Your task to perform on an android device: Clear the shopping cart on amazon. Search for "macbook pro 15 inch" on amazon, select the first entry, add it to the cart, then select checkout. Image 0: 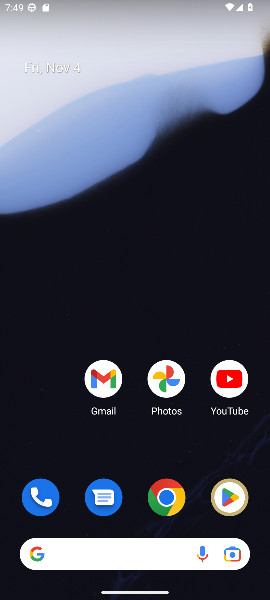
Step 0: click (162, 501)
Your task to perform on an android device: Clear the shopping cart on amazon. Search for "macbook pro 15 inch" on amazon, select the first entry, add it to the cart, then select checkout. Image 1: 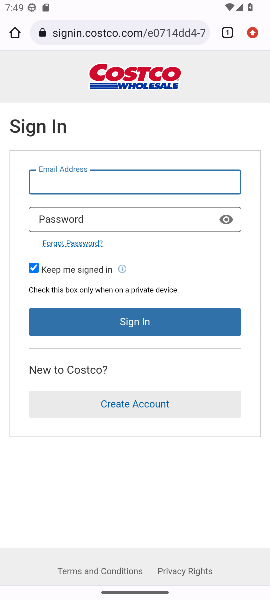
Step 1: click (84, 40)
Your task to perform on an android device: Clear the shopping cart on amazon. Search for "macbook pro 15 inch" on amazon, select the first entry, add it to the cart, then select checkout. Image 2: 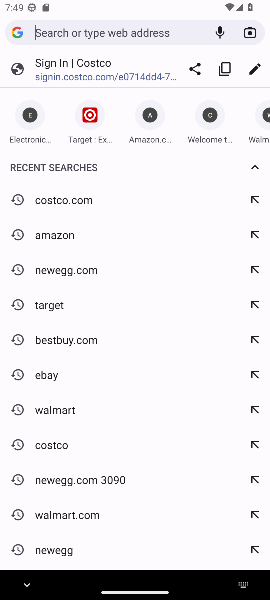
Step 2: click (60, 240)
Your task to perform on an android device: Clear the shopping cart on amazon. Search for "macbook pro 15 inch" on amazon, select the first entry, add it to the cart, then select checkout. Image 3: 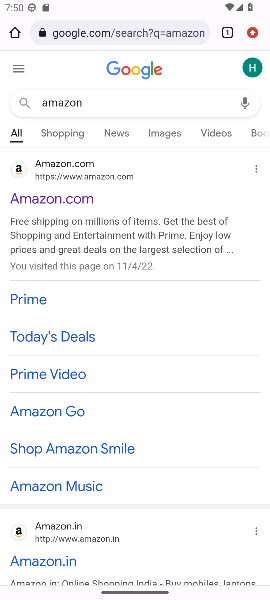
Step 3: click (54, 208)
Your task to perform on an android device: Clear the shopping cart on amazon. Search for "macbook pro 15 inch" on amazon, select the first entry, add it to the cart, then select checkout. Image 4: 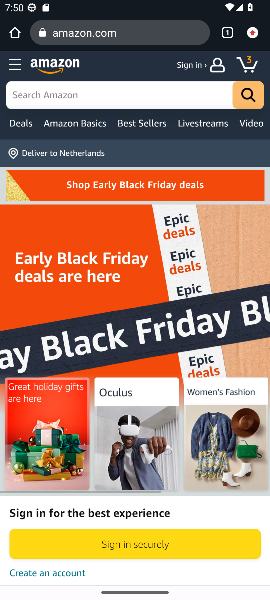
Step 4: click (237, 68)
Your task to perform on an android device: Clear the shopping cart on amazon. Search for "macbook pro 15 inch" on amazon, select the first entry, add it to the cart, then select checkout. Image 5: 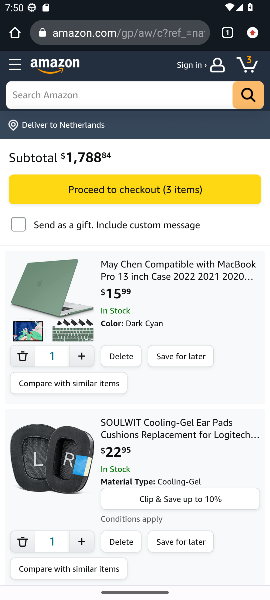
Step 5: click (111, 359)
Your task to perform on an android device: Clear the shopping cart on amazon. Search for "macbook pro 15 inch" on amazon, select the first entry, add it to the cart, then select checkout. Image 6: 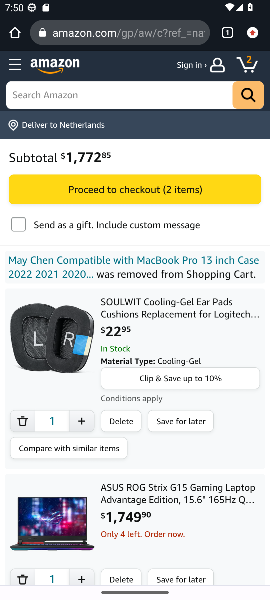
Step 6: click (111, 419)
Your task to perform on an android device: Clear the shopping cart on amazon. Search for "macbook pro 15 inch" on amazon, select the first entry, add it to the cart, then select checkout. Image 7: 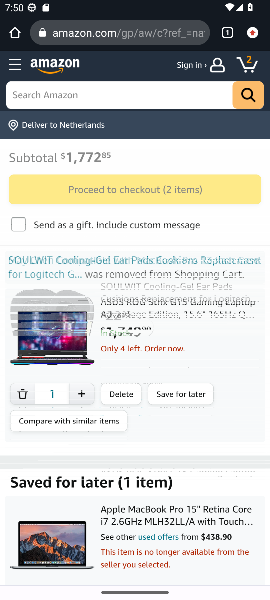
Step 7: click (120, 385)
Your task to perform on an android device: Clear the shopping cart on amazon. Search for "macbook pro 15 inch" on amazon, select the first entry, add it to the cart, then select checkout. Image 8: 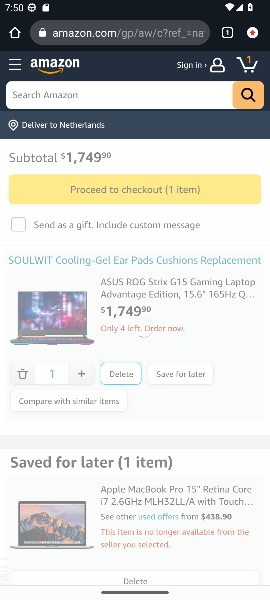
Step 8: click (111, 377)
Your task to perform on an android device: Clear the shopping cart on amazon. Search for "macbook pro 15 inch" on amazon, select the first entry, add it to the cart, then select checkout. Image 9: 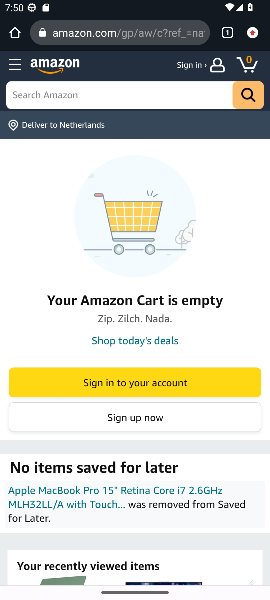
Step 9: click (64, 100)
Your task to perform on an android device: Clear the shopping cart on amazon. Search for "macbook pro 15 inch" on amazon, select the first entry, add it to the cart, then select checkout. Image 10: 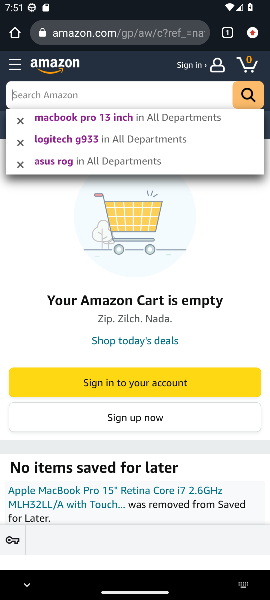
Step 10: type "macbook pro 15 inch"
Your task to perform on an android device: Clear the shopping cart on amazon. Search for "macbook pro 15 inch" on amazon, select the first entry, add it to the cart, then select checkout. Image 11: 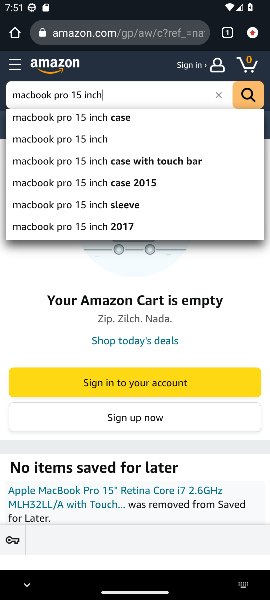
Step 11: click (62, 145)
Your task to perform on an android device: Clear the shopping cart on amazon. Search for "macbook pro 15 inch" on amazon, select the first entry, add it to the cart, then select checkout. Image 12: 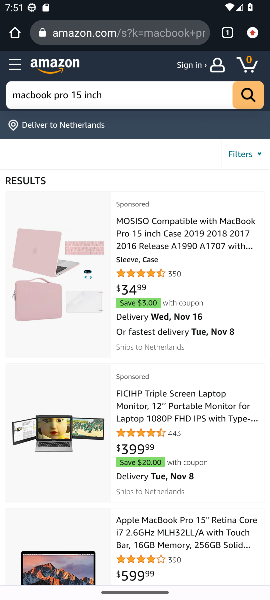
Step 12: click (116, 259)
Your task to perform on an android device: Clear the shopping cart on amazon. Search for "macbook pro 15 inch" on amazon, select the first entry, add it to the cart, then select checkout. Image 13: 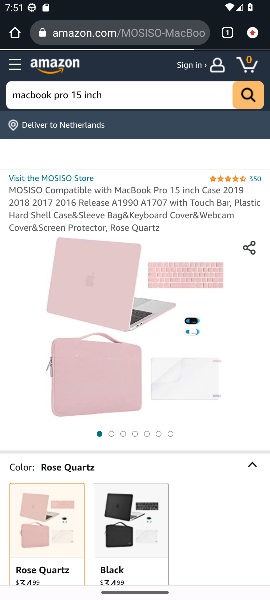
Step 13: drag from (111, 423) to (91, 195)
Your task to perform on an android device: Clear the shopping cart on amazon. Search for "macbook pro 15 inch" on amazon, select the first entry, add it to the cart, then select checkout. Image 14: 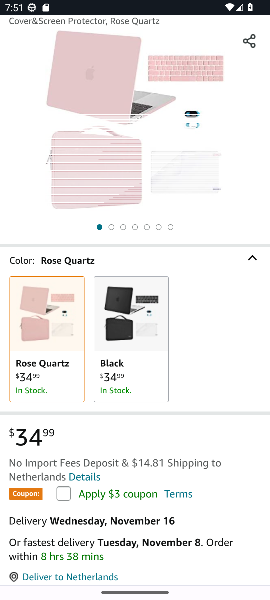
Step 14: drag from (89, 416) to (70, 264)
Your task to perform on an android device: Clear the shopping cart on amazon. Search for "macbook pro 15 inch" on amazon, select the first entry, add it to the cart, then select checkout. Image 15: 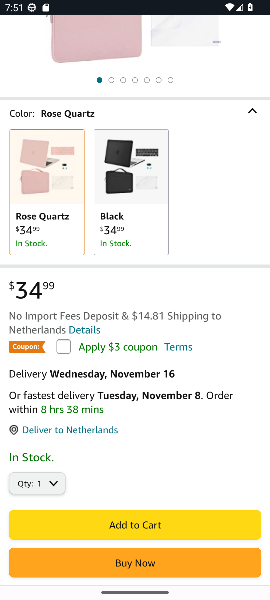
Step 15: click (112, 529)
Your task to perform on an android device: Clear the shopping cart on amazon. Search for "macbook pro 15 inch" on amazon, select the first entry, add it to the cart, then select checkout. Image 16: 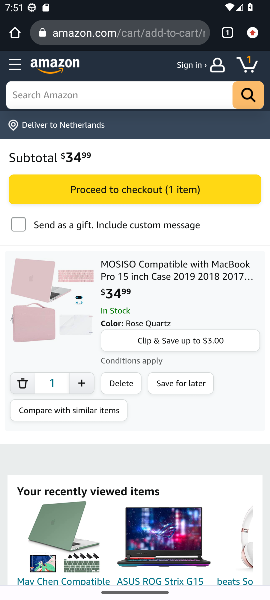
Step 16: click (92, 196)
Your task to perform on an android device: Clear the shopping cart on amazon. Search for "macbook pro 15 inch" on amazon, select the first entry, add it to the cart, then select checkout. Image 17: 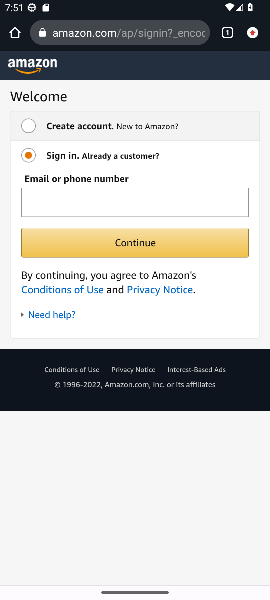
Step 17: task complete